Your task to perform on an android device: What's the weather? Image 0: 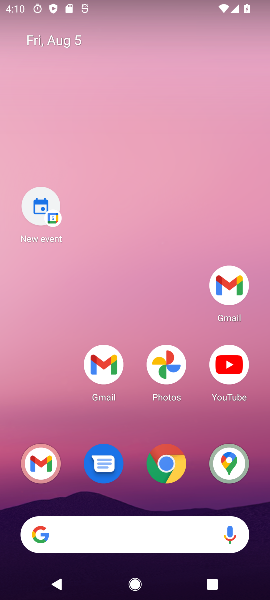
Step 0: drag from (118, 319) to (113, 61)
Your task to perform on an android device: What's the weather? Image 1: 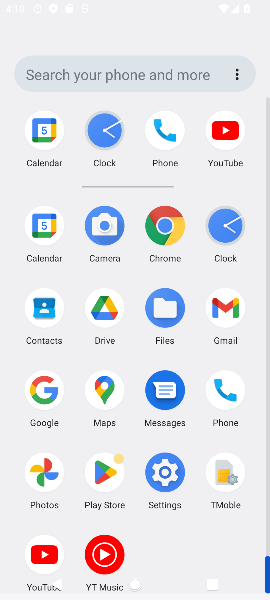
Step 1: drag from (186, 228) to (186, 64)
Your task to perform on an android device: What's the weather? Image 2: 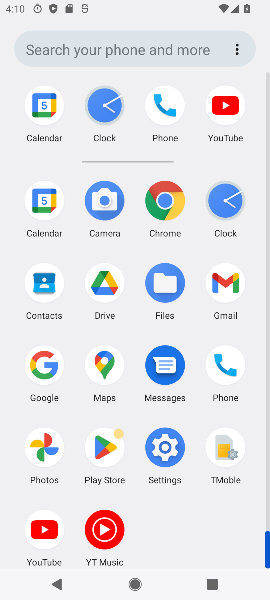
Step 2: click (169, 202)
Your task to perform on an android device: What's the weather? Image 3: 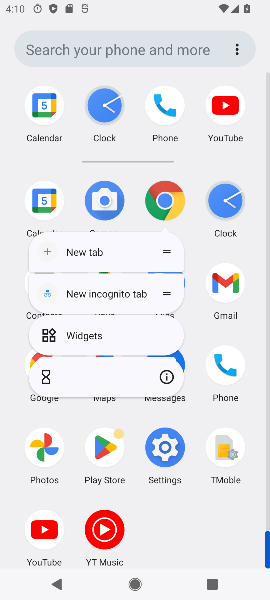
Step 3: click (174, 207)
Your task to perform on an android device: What's the weather? Image 4: 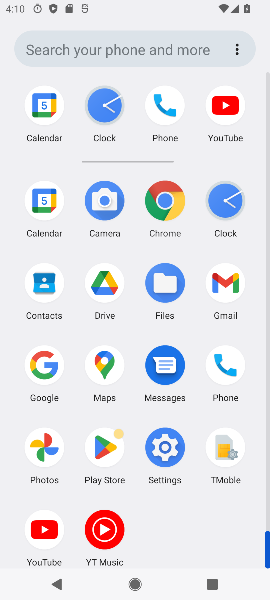
Step 4: click (176, 209)
Your task to perform on an android device: What's the weather? Image 5: 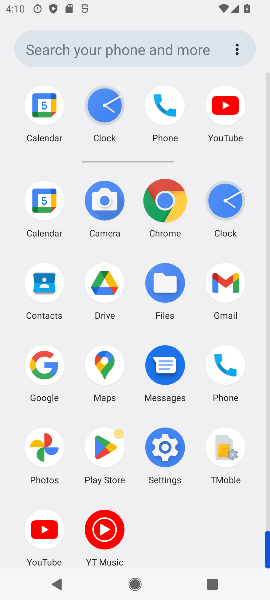
Step 5: click (176, 209)
Your task to perform on an android device: What's the weather? Image 6: 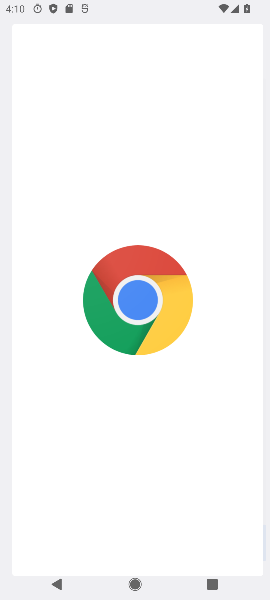
Step 6: click (178, 208)
Your task to perform on an android device: What's the weather? Image 7: 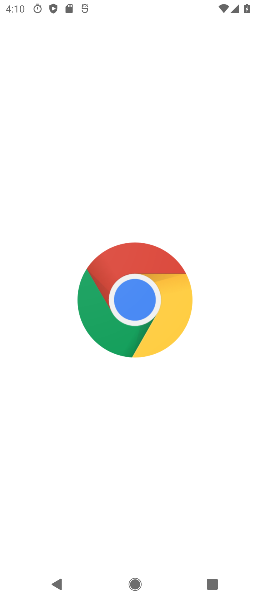
Step 7: click (162, 198)
Your task to perform on an android device: What's the weather? Image 8: 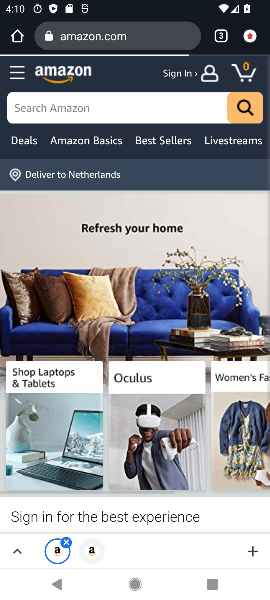
Step 8: press back button
Your task to perform on an android device: What's the weather? Image 9: 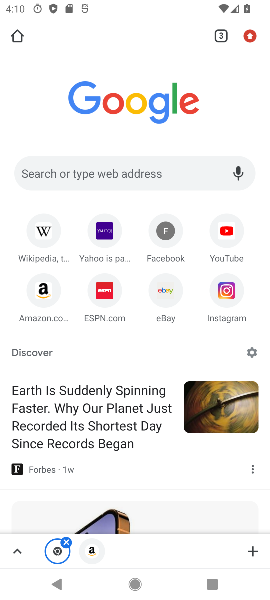
Step 9: click (50, 177)
Your task to perform on an android device: What's the weather? Image 10: 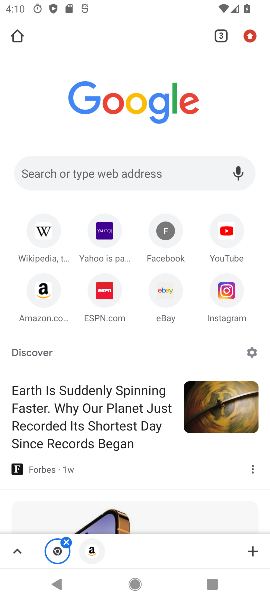
Step 10: click (51, 177)
Your task to perform on an android device: What's the weather? Image 11: 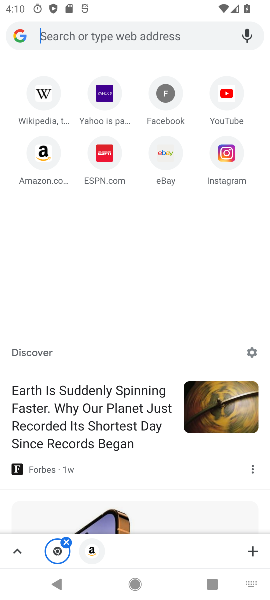
Step 11: click (52, 175)
Your task to perform on an android device: What's the weather? Image 12: 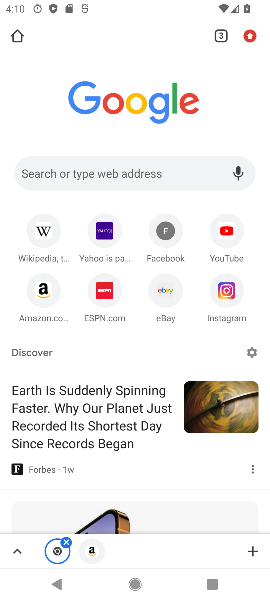
Step 12: type "weathber fpr today"
Your task to perform on an android device: What's the weather? Image 13: 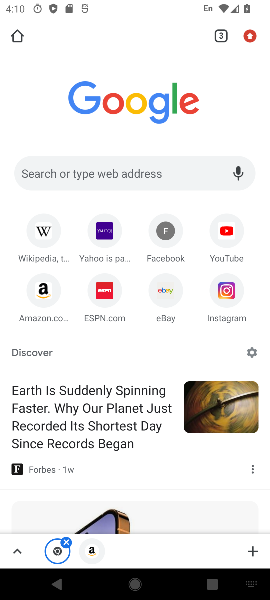
Step 13: click (50, 173)
Your task to perform on an android device: What's the weather? Image 14: 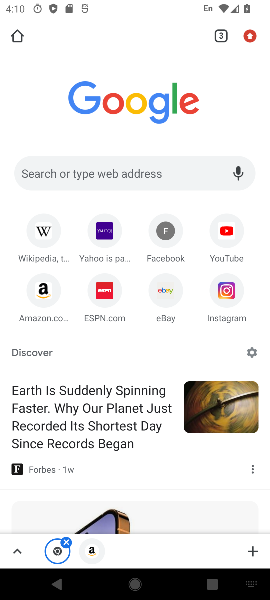
Step 14: click (53, 172)
Your task to perform on an android device: What's the weather? Image 15: 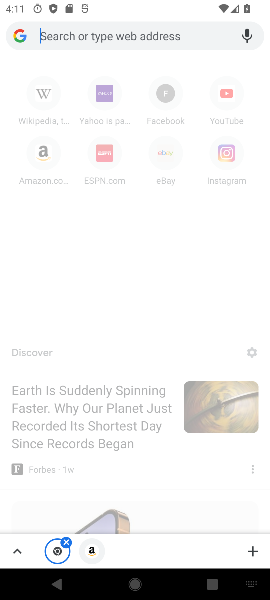
Step 15: type "weather for today?"
Your task to perform on an android device: What's the weather? Image 16: 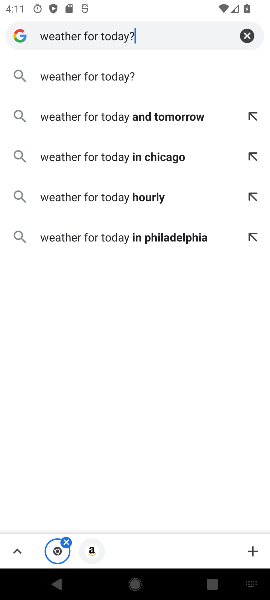
Step 16: click (80, 76)
Your task to perform on an android device: What's the weather? Image 17: 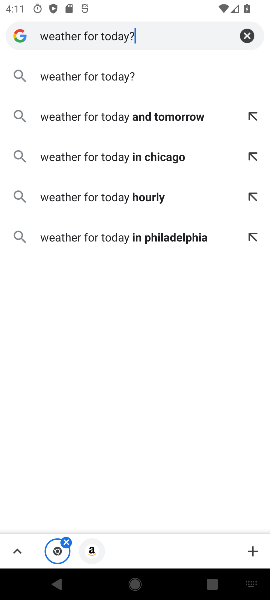
Step 17: click (80, 76)
Your task to perform on an android device: What's the weather? Image 18: 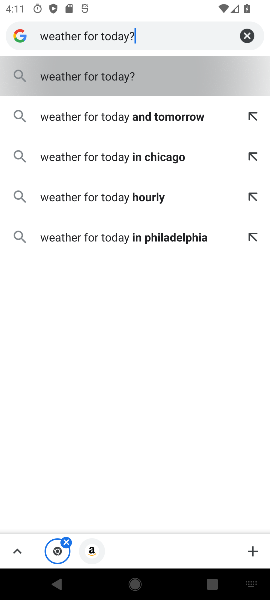
Step 18: click (80, 76)
Your task to perform on an android device: What's the weather? Image 19: 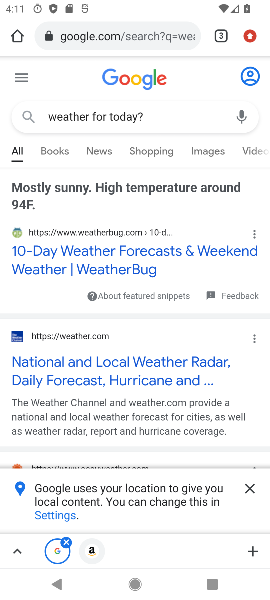
Step 19: task complete